Your task to perform on an android device: turn on improve location accuracy Image 0: 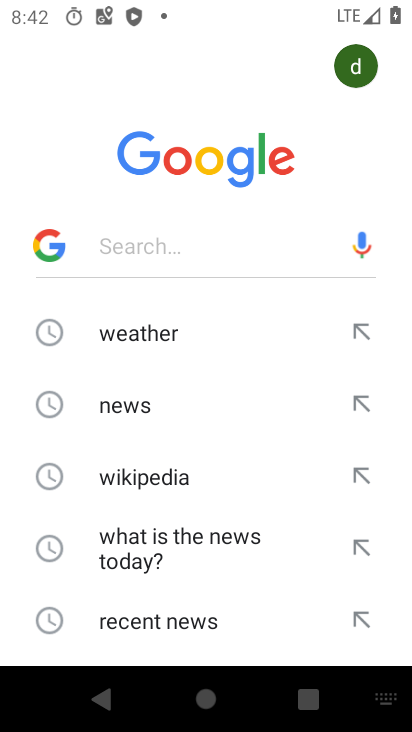
Step 0: press back button
Your task to perform on an android device: turn on improve location accuracy Image 1: 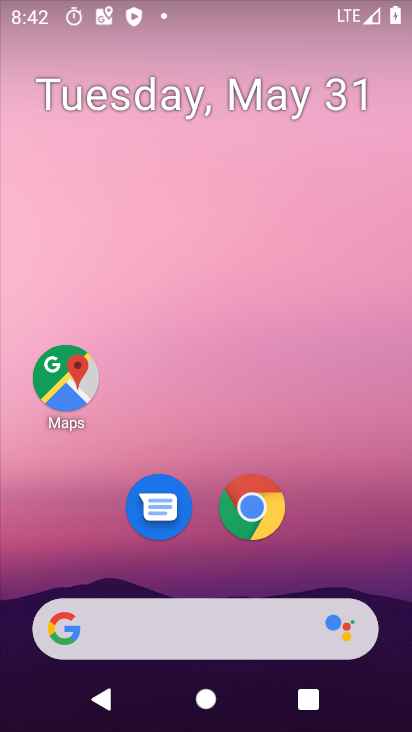
Step 1: drag from (20, 671) to (288, 107)
Your task to perform on an android device: turn on improve location accuracy Image 2: 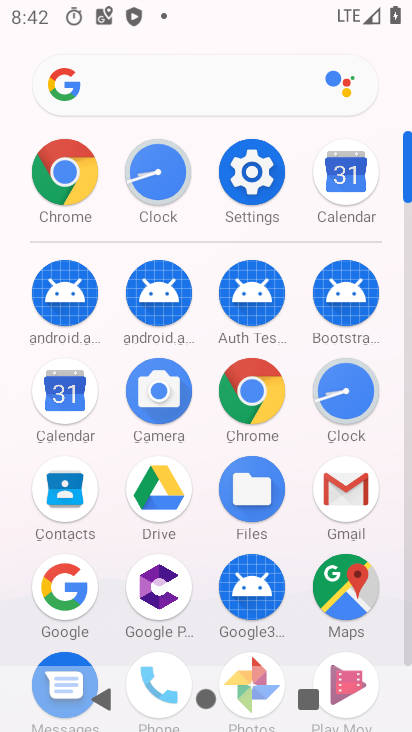
Step 2: click (254, 188)
Your task to perform on an android device: turn on improve location accuracy Image 3: 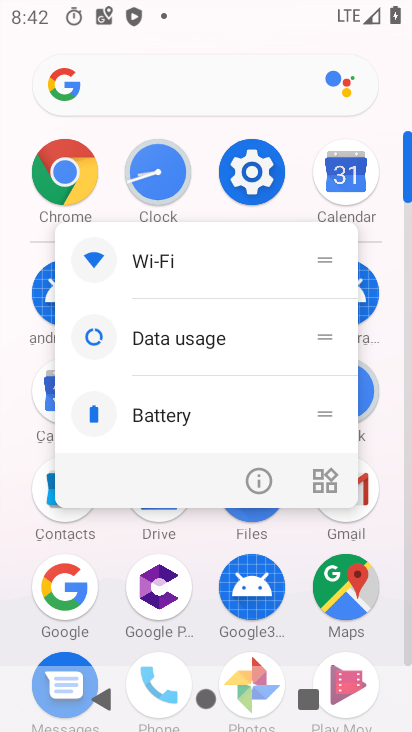
Step 3: click (258, 178)
Your task to perform on an android device: turn on improve location accuracy Image 4: 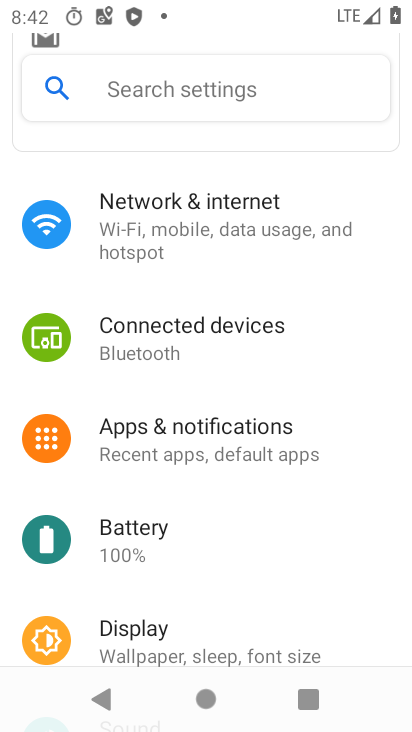
Step 4: drag from (7, 538) to (208, 197)
Your task to perform on an android device: turn on improve location accuracy Image 5: 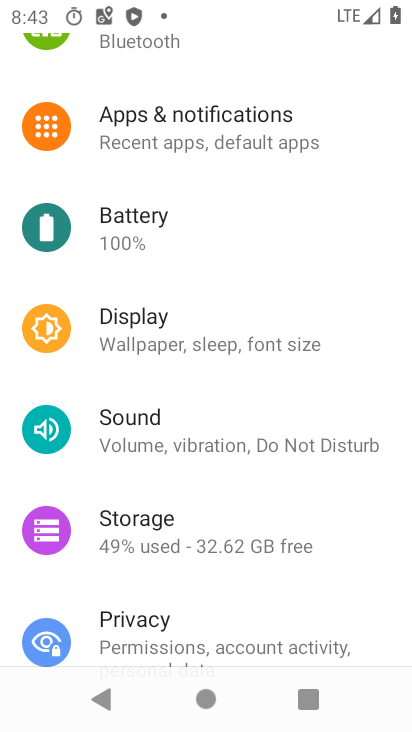
Step 5: drag from (16, 484) to (194, 190)
Your task to perform on an android device: turn on improve location accuracy Image 6: 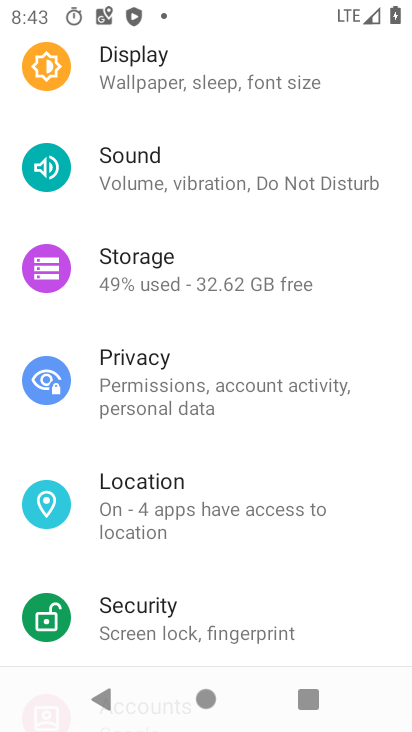
Step 6: click (54, 499)
Your task to perform on an android device: turn on improve location accuracy Image 7: 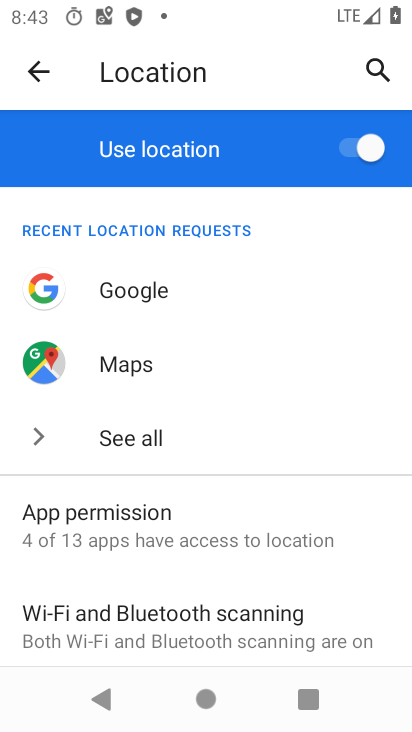
Step 7: drag from (46, 578) to (286, 138)
Your task to perform on an android device: turn on improve location accuracy Image 8: 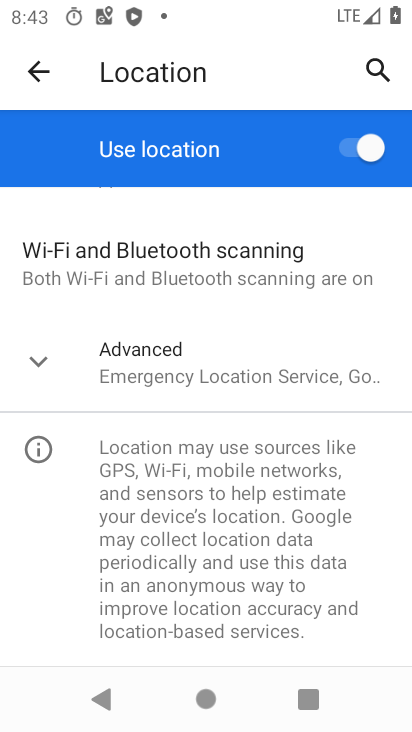
Step 8: click (174, 369)
Your task to perform on an android device: turn on improve location accuracy Image 9: 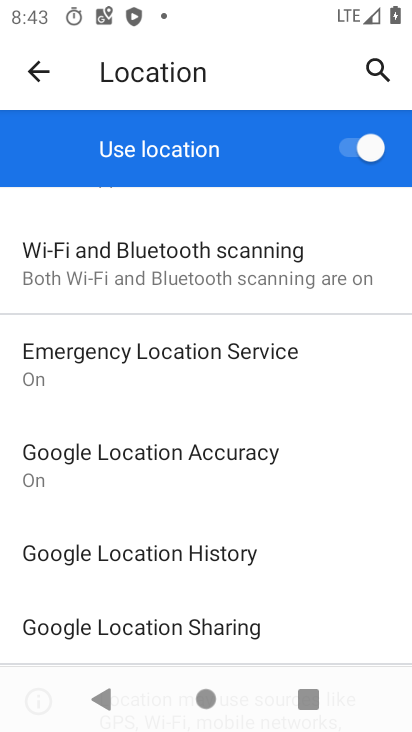
Step 9: click (126, 454)
Your task to perform on an android device: turn on improve location accuracy Image 10: 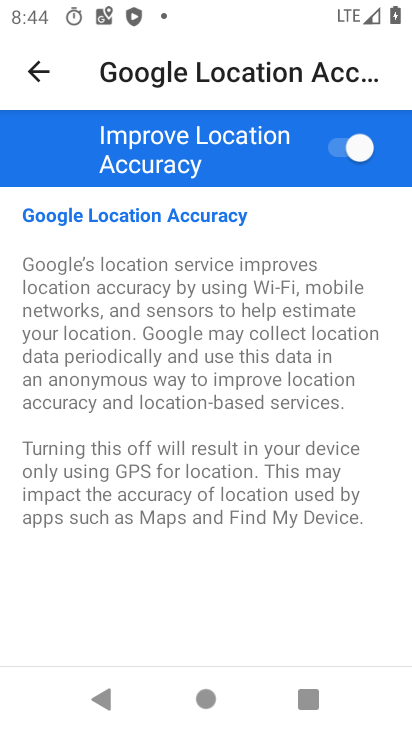
Step 10: task complete